Your task to perform on an android device: Turn on the flashlight Image 0: 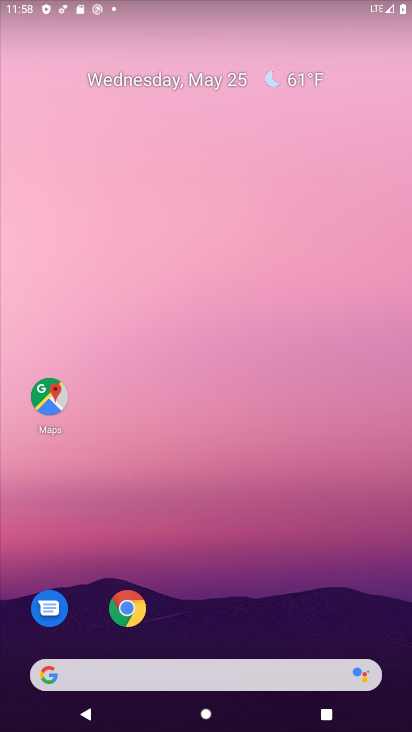
Step 0: drag from (204, 36) to (208, 458)
Your task to perform on an android device: Turn on the flashlight Image 1: 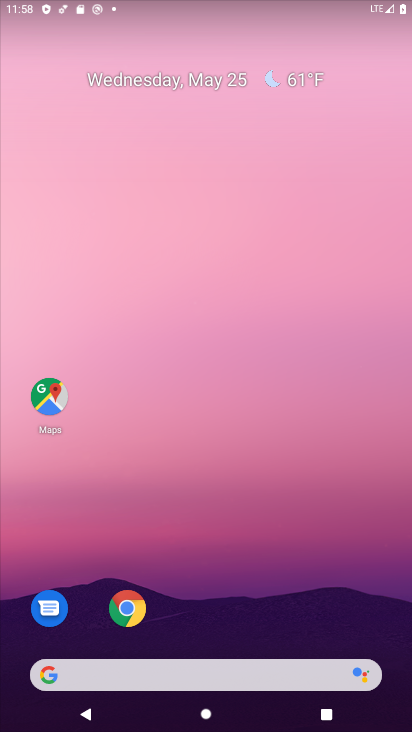
Step 1: drag from (242, 11) to (215, 522)
Your task to perform on an android device: Turn on the flashlight Image 2: 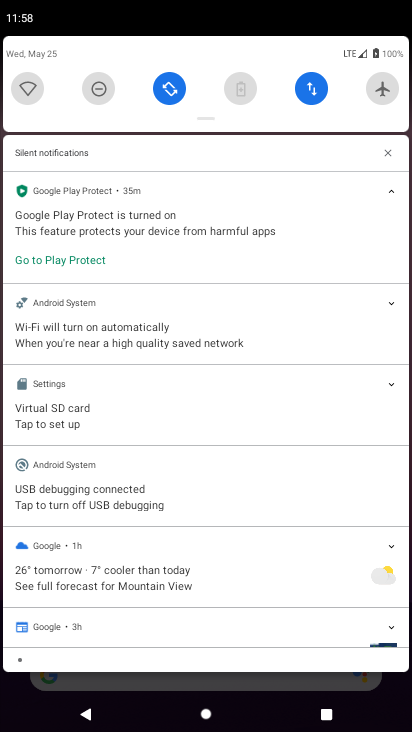
Step 2: drag from (183, 114) to (214, 543)
Your task to perform on an android device: Turn on the flashlight Image 3: 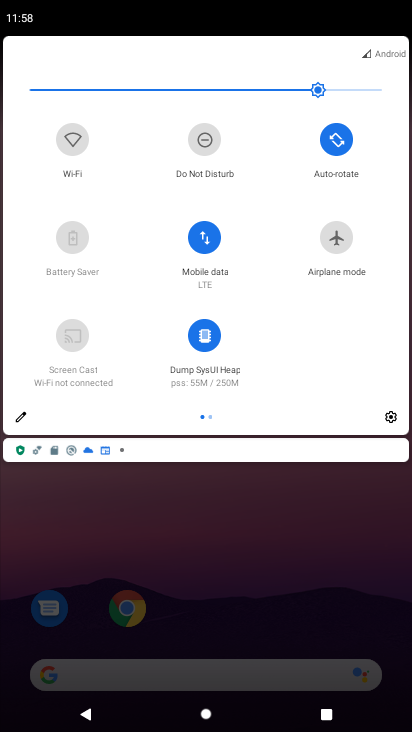
Step 3: click (24, 405)
Your task to perform on an android device: Turn on the flashlight Image 4: 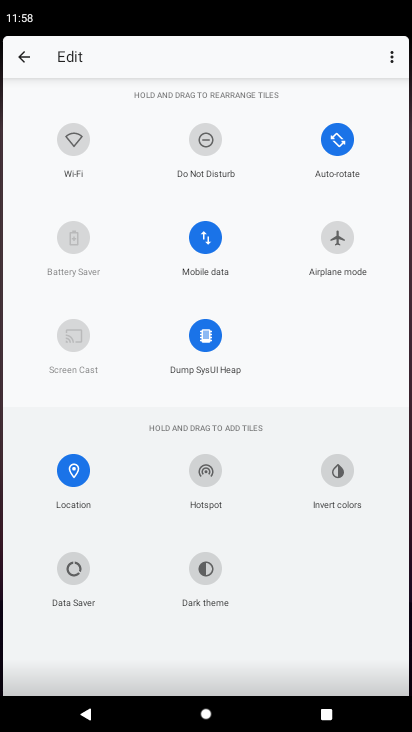
Step 4: task complete